Your task to perform on an android device: change keyboard looks Image 0: 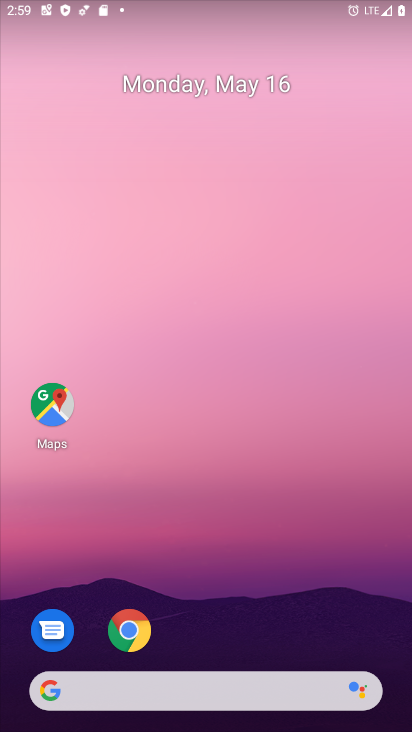
Step 0: drag from (210, 654) to (201, 220)
Your task to perform on an android device: change keyboard looks Image 1: 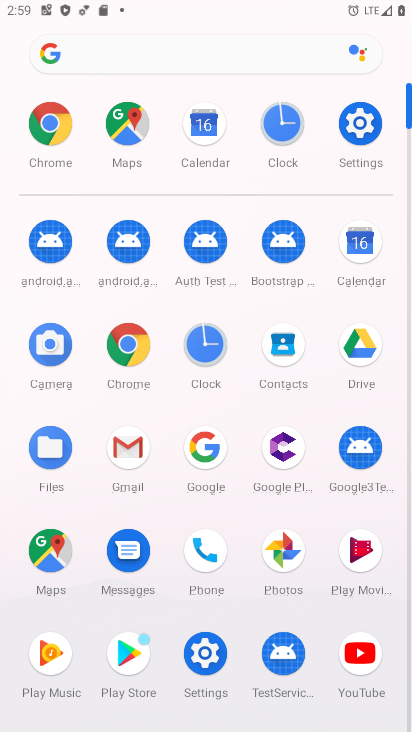
Step 1: click (356, 115)
Your task to perform on an android device: change keyboard looks Image 2: 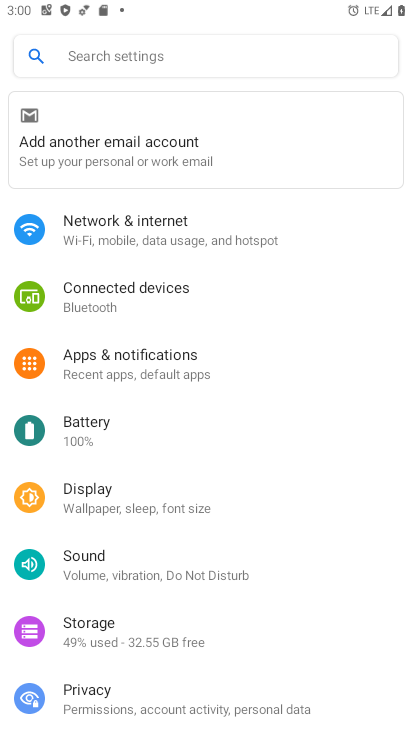
Step 2: drag from (137, 686) to (165, 91)
Your task to perform on an android device: change keyboard looks Image 3: 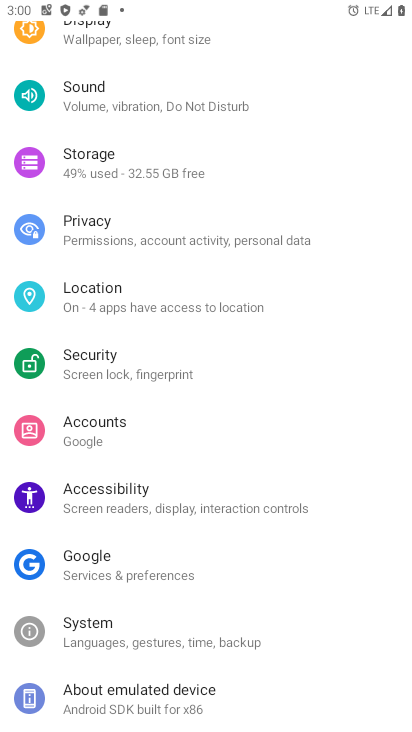
Step 3: click (123, 634)
Your task to perform on an android device: change keyboard looks Image 4: 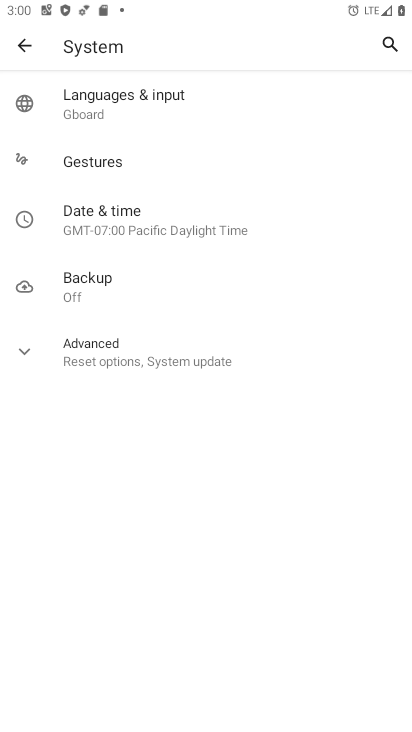
Step 4: click (87, 103)
Your task to perform on an android device: change keyboard looks Image 5: 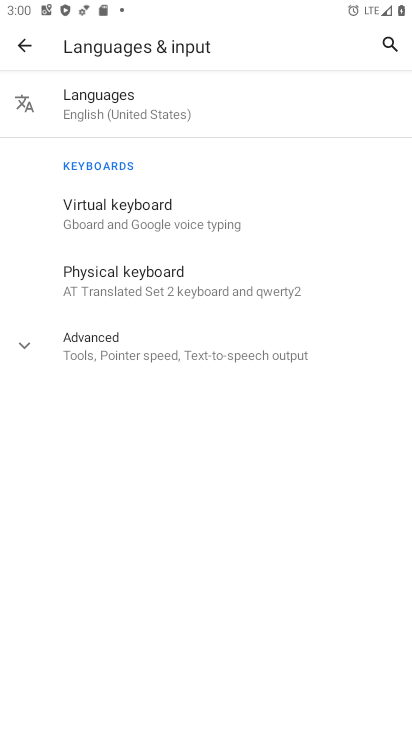
Step 5: click (118, 212)
Your task to perform on an android device: change keyboard looks Image 6: 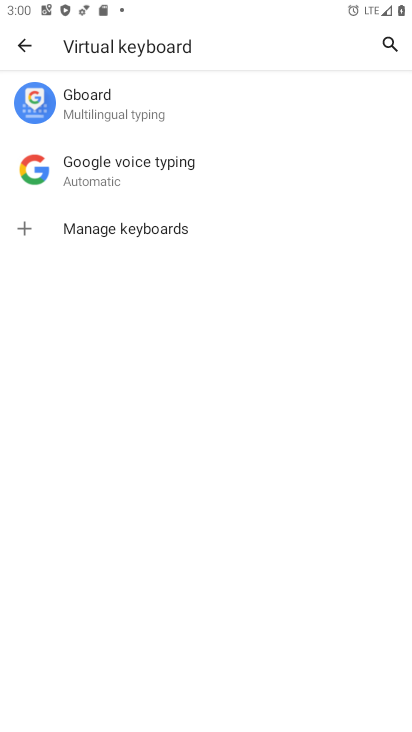
Step 6: click (120, 103)
Your task to perform on an android device: change keyboard looks Image 7: 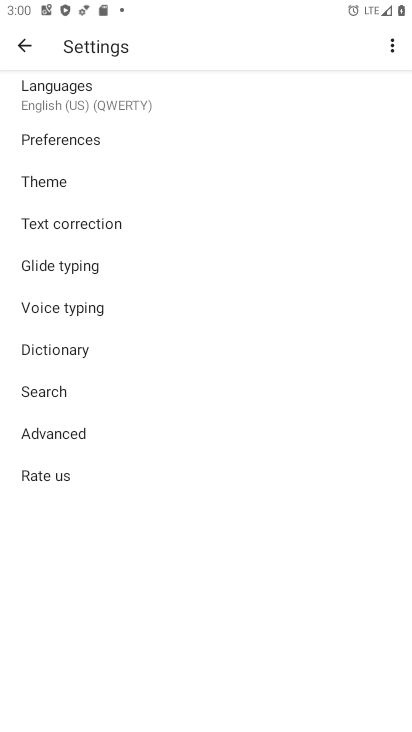
Step 7: click (76, 175)
Your task to perform on an android device: change keyboard looks Image 8: 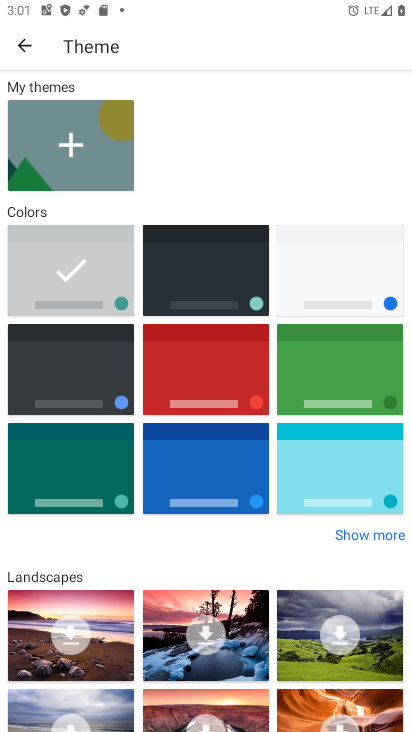
Step 8: click (325, 360)
Your task to perform on an android device: change keyboard looks Image 9: 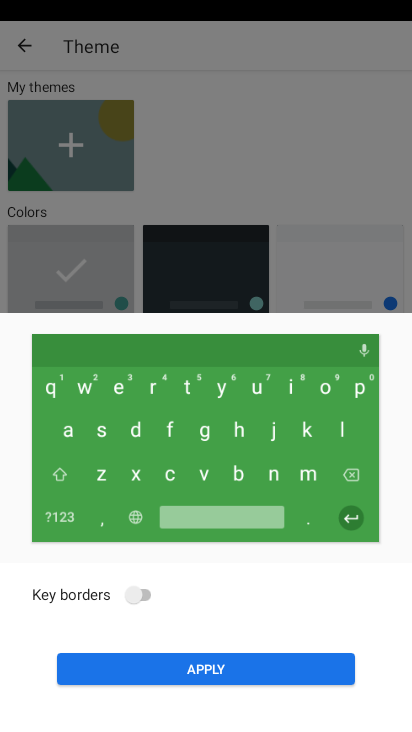
Step 9: click (200, 669)
Your task to perform on an android device: change keyboard looks Image 10: 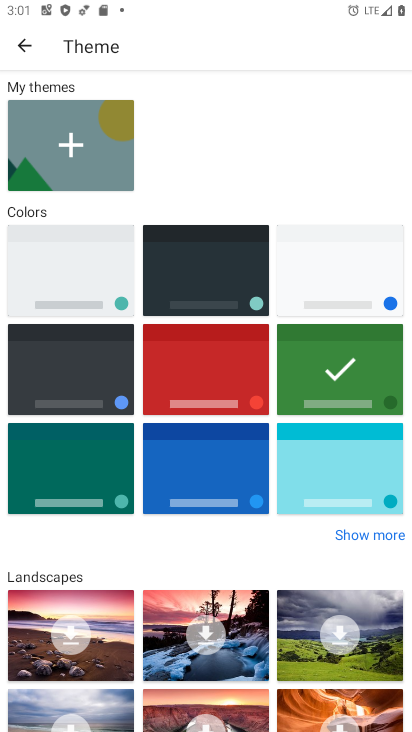
Step 10: task complete